Your task to perform on an android device: turn off javascript in the chrome app Image 0: 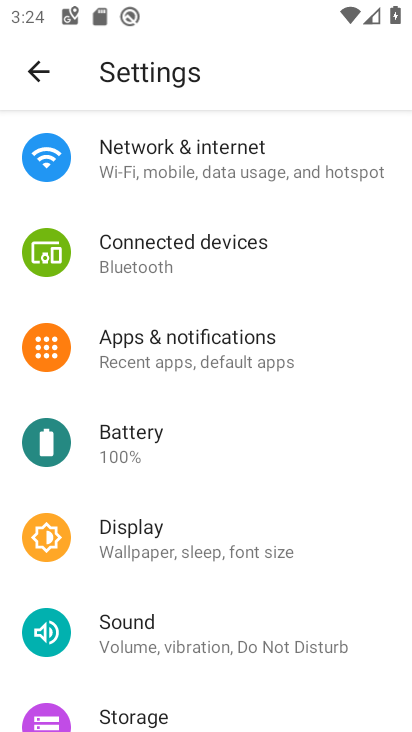
Step 0: press home button
Your task to perform on an android device: turn off javascript in the chrome app Image 1: 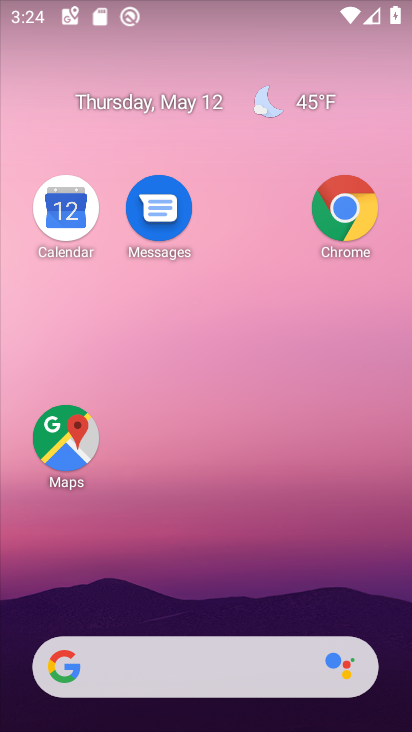
Step 1: click (340, 198)
Your task to perform on an android device: turn off javascript in the chrome app Image 2: 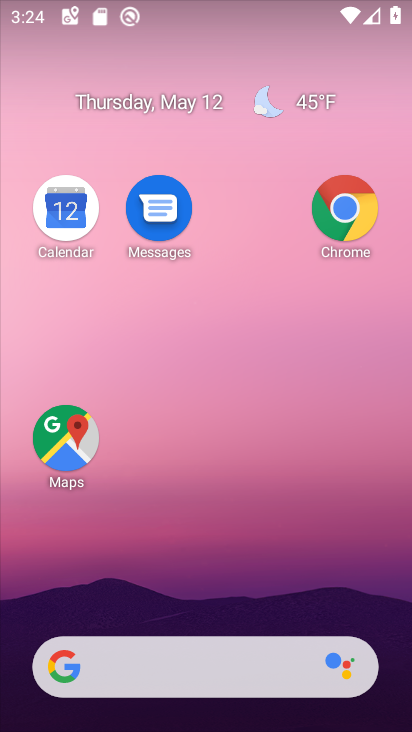
Step 2: click (340, 198)
Your task to perform on an android device: turn off javascript in the chrome app Image 3: 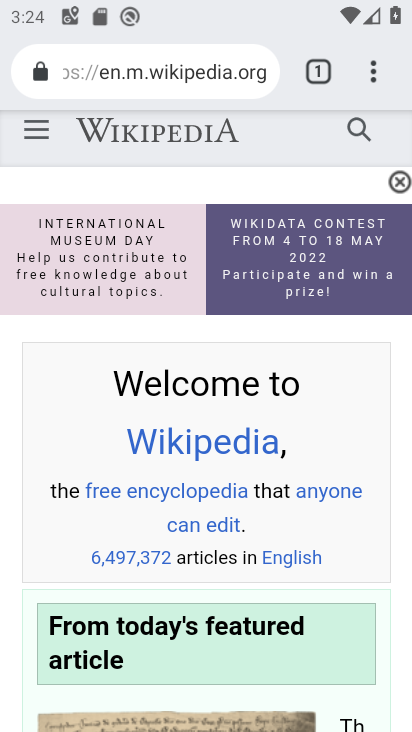
Step 3: drag from (232, 481) to (294, 208)
Your task to perform on an android device: turn off javascript in the chrome app Image 4: 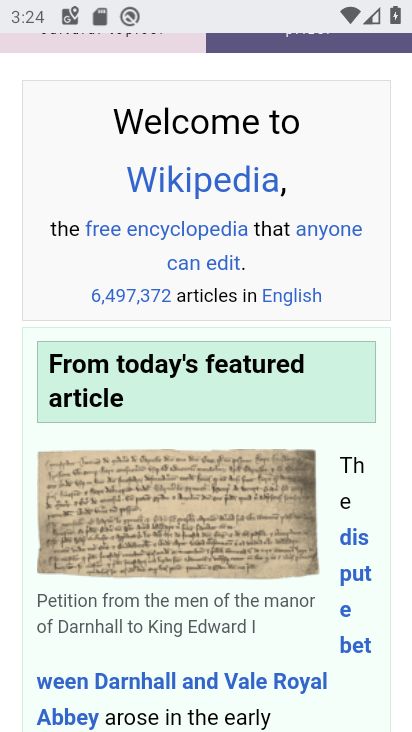
Step 4: drag from (324, 171) to (312, 656)
Your task to perform on an android device: turn off javascript in the chrome app Image 5: 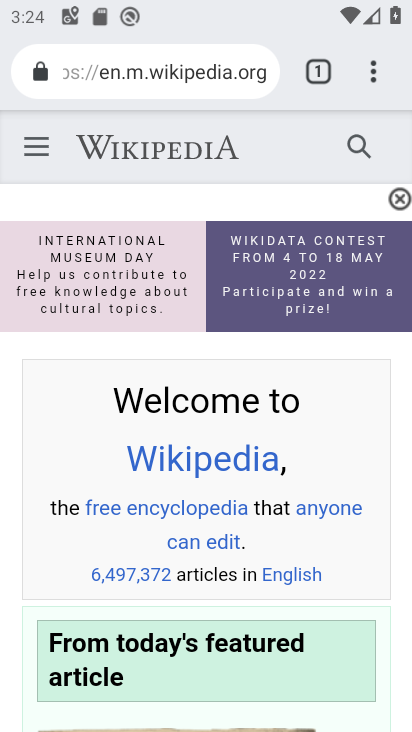
Step 5: drag from (370, 70) to (140, 592)
Your task to perform on an android device: turn off javascript in the chrome app Image 6: 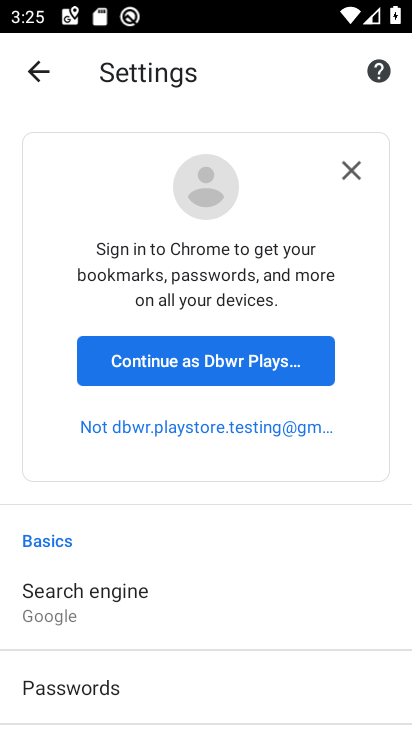
Step 6: drag from (184, 631) to (207, 173)
Your task to perform on an android device: turn off javascript in the chrome app Image 7: 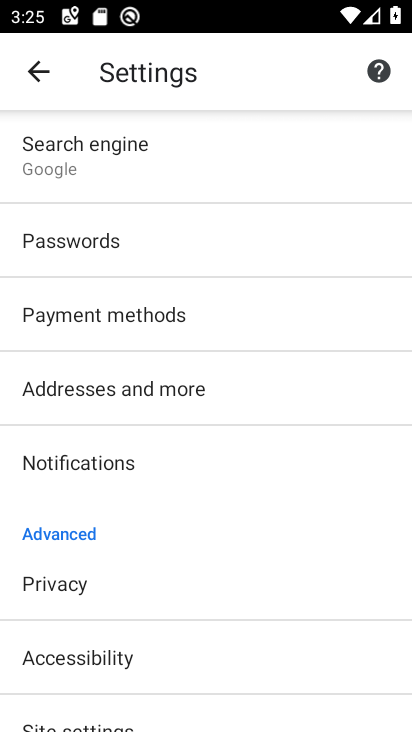
Step 7: drag from (142, 615) to (192, 212)
Your task to perform on an android device: turn off javascript in the chrome app Image 8: 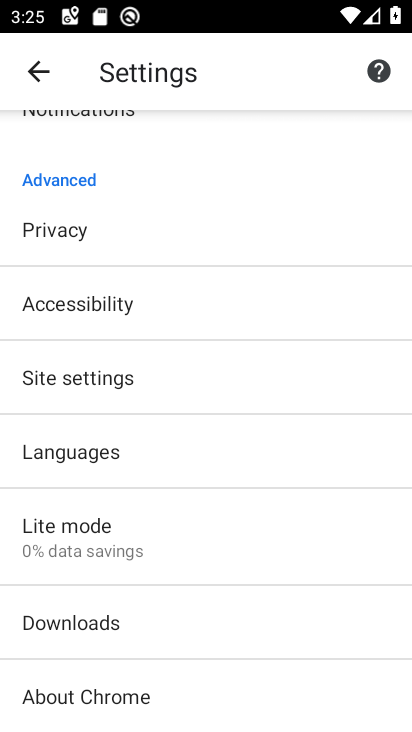
Step 8: click (126, 374)
Your task to perform on an android device: turn off javascript in the chrome app Image 9: 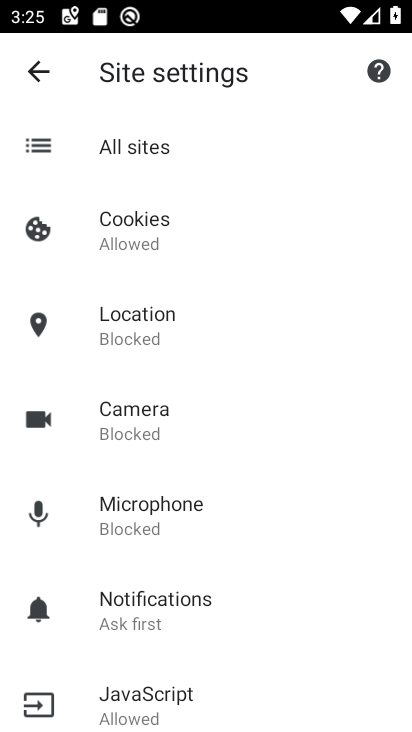
Step 9: click (157, 680)
Your task to perform on an android device: turn off javascript in the chrome app Image 10: 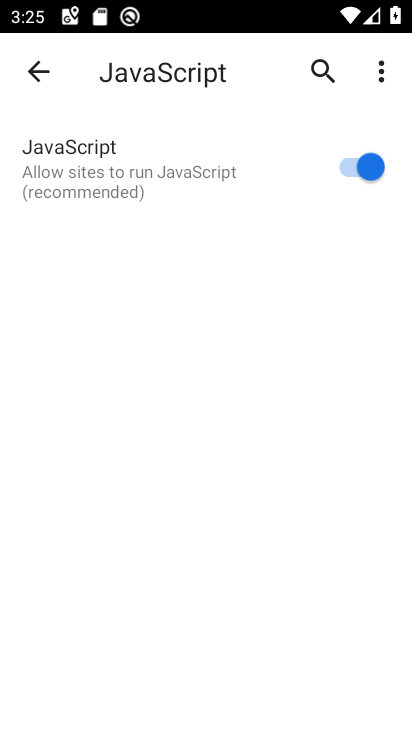
Step 10: drag from (225, 509) to (271, 214)
Your task to perform on an android device: turn off javascript in the chrome app Image 11: 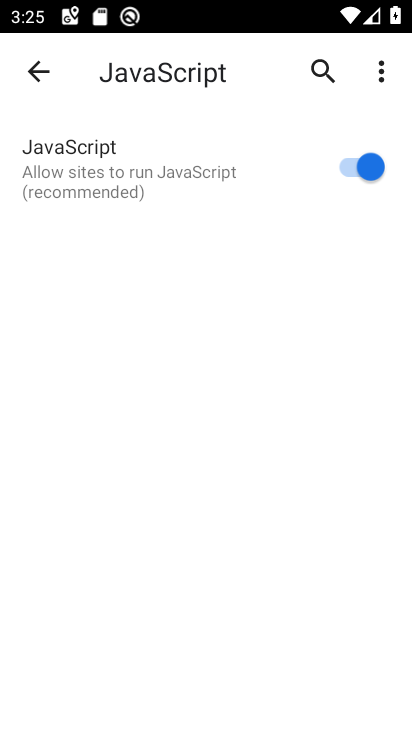
Step 11: click (363, 162)
Your task to perform on an android device: turn off javascript in the chrome app Image 12: 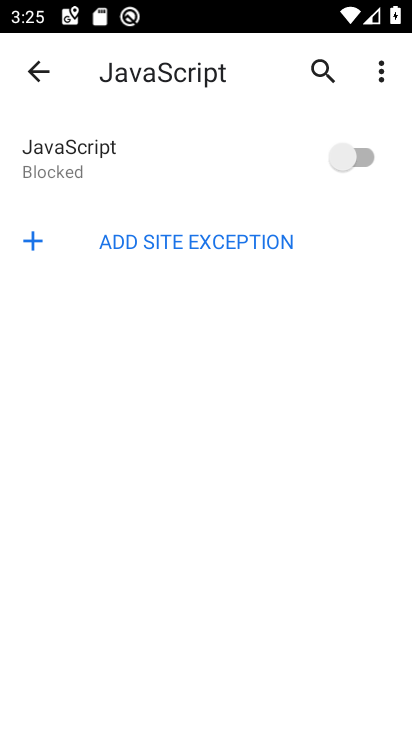
Step 12: task complete